Your task to perform on an android device: turn off location history Image 0: 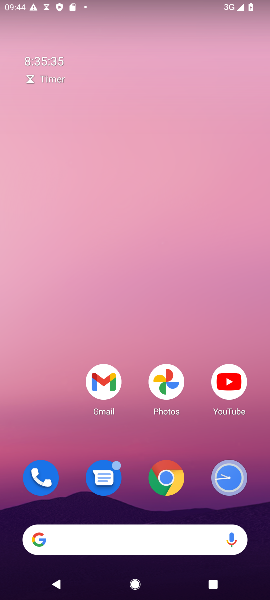
Step 0: drag from (192, 360) to (141, 30)
Your task to perform on an android device: turn off location history Image 1: 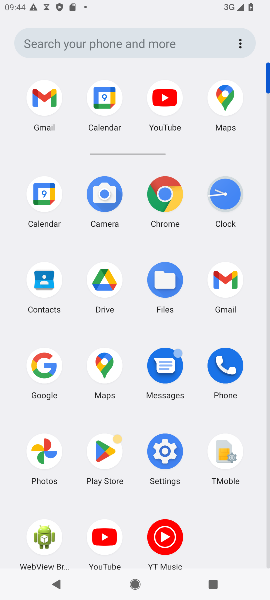
Step 1: click (226, 105)
Your task to perform on an android device: turn off location history Image 2: 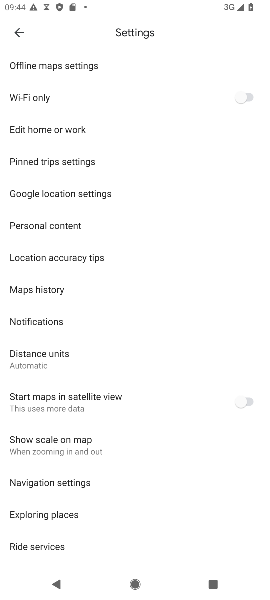
Step 2: task complete